Your task to perform on an android device: set the stopwatch Image 0: 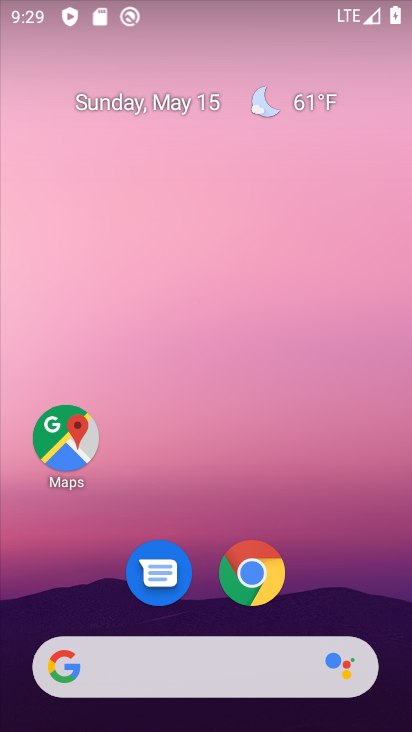
Step 0: drag from (49, 582) to (339, 64)
Your task to perform on an android device: set the stopwatch Image 1: 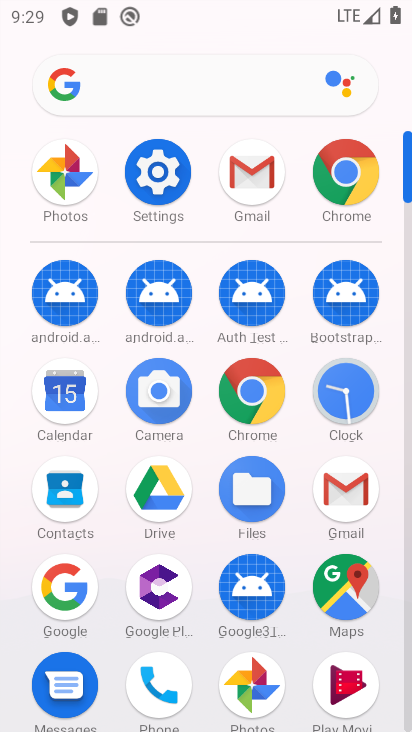
Step 1: click (343, 382)
Your task to perform on an android device: set the stopwatch Image 2: 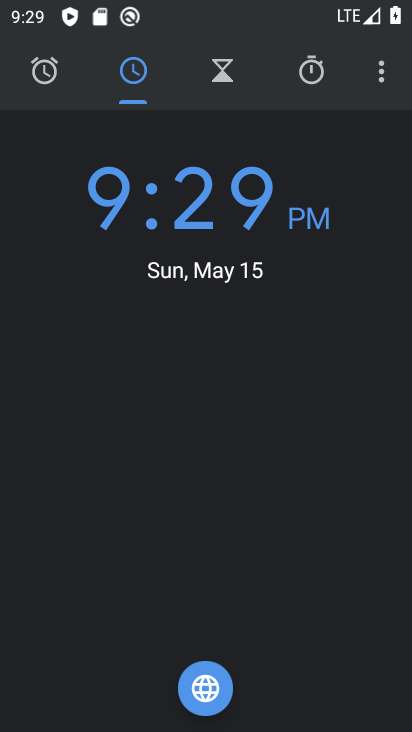
Step 2: click (295, 81)
Your task to perform on an android device: set the stopwatch Image 3: 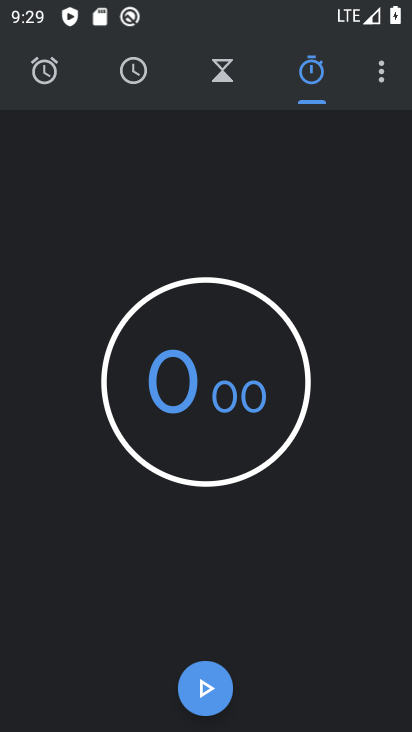
Step 3: click (206, 676)
Your task to perform on an android device: set the stopwatch Image 4: 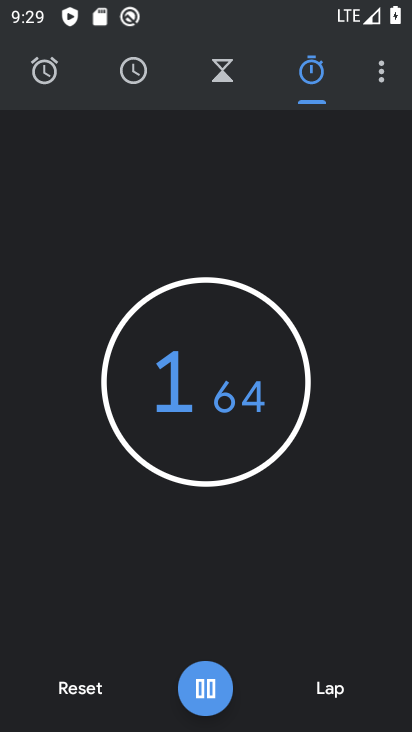
Step 4: task complete